Your task to perform on an android device: check battery use Image 0: 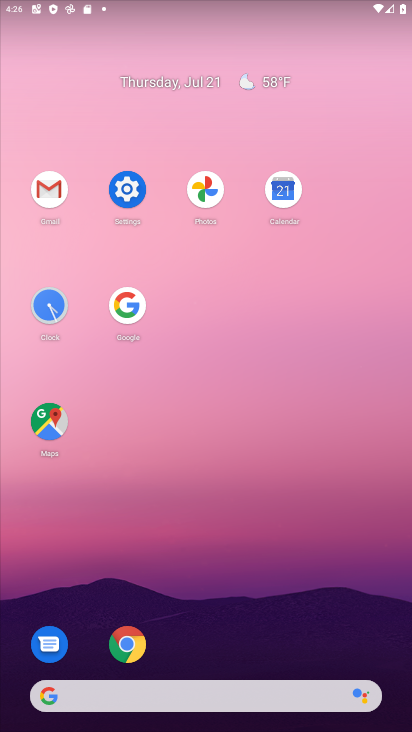
Step 0: click (135, 181)
Your task to perform on an android device: check battery use Image 1: 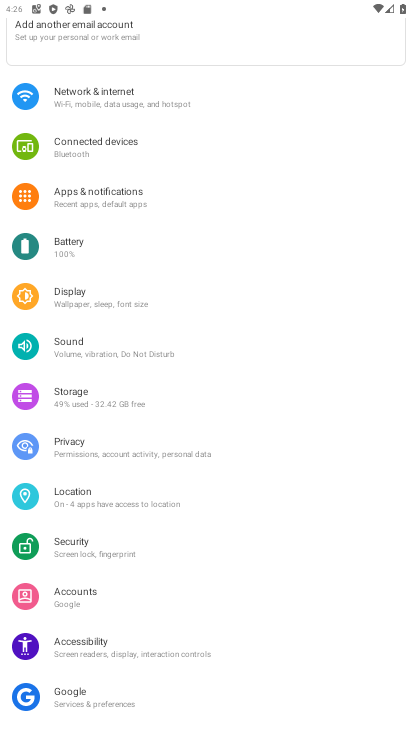
Step 1: click (116, 239)
Your task to perform on an android device: check battery use Image 2: 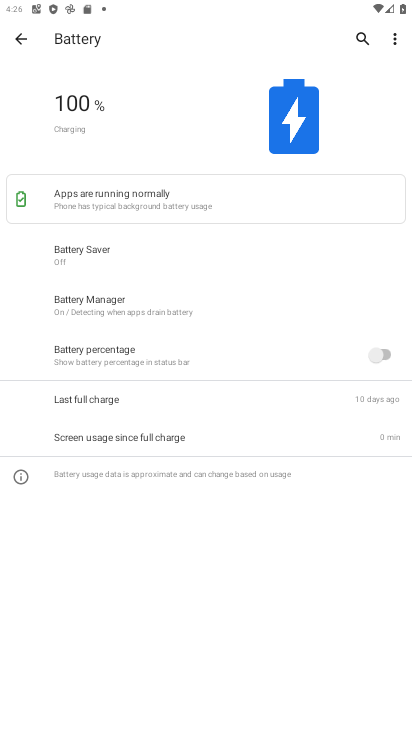
Step 2: click (392, 41)
Your task to perform on an android device: check battery use Image 3: 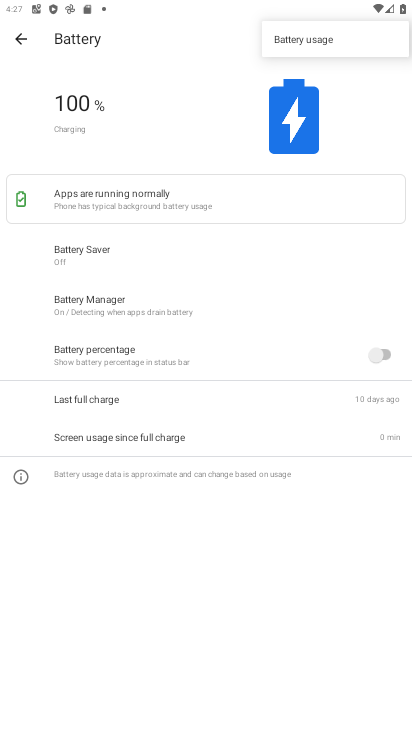
Step 3: click (318, 45)
Your task to perform on an android device: check battery use Image 4: 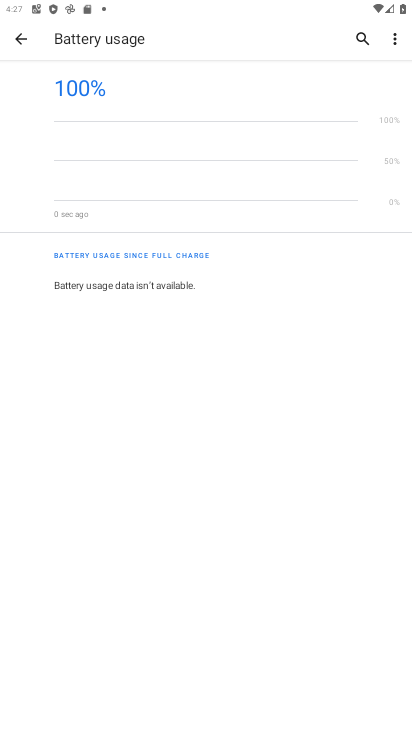
Step 4: task complete